Your task to perform on an android device: What's on my calendar tomorrow? Image 0: 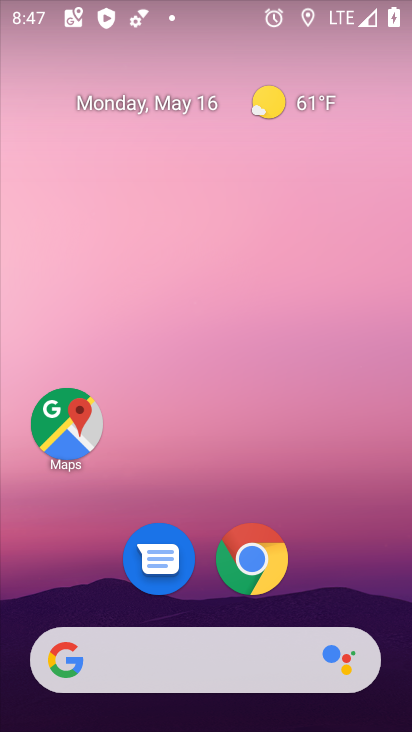
Step 0: drag from (336, 553) to (308, 113)
Your task to perform on an android device: What's on my calendar tomorrow? Image 1: 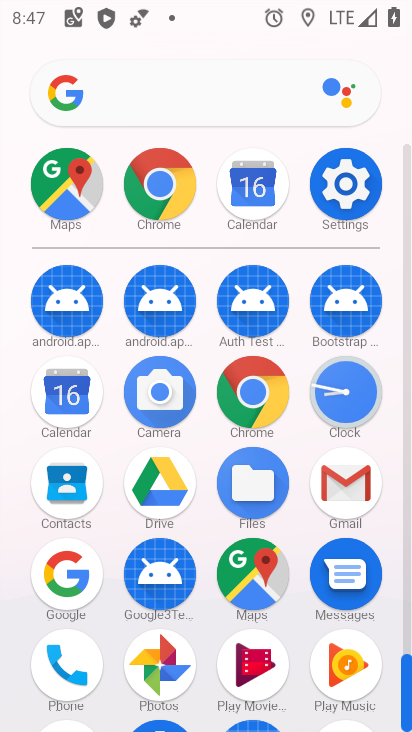
Step 1: click (72, 403)
Your task to perform on an android device: What's on my calendar tomorrow? Image 2: 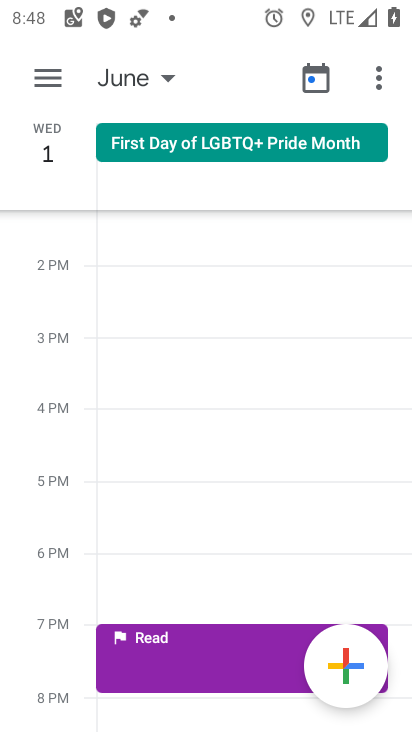
Step 2: click (122, 81)
Your task to perform on an android device: What's on my calendar tomorrow? Image 3: 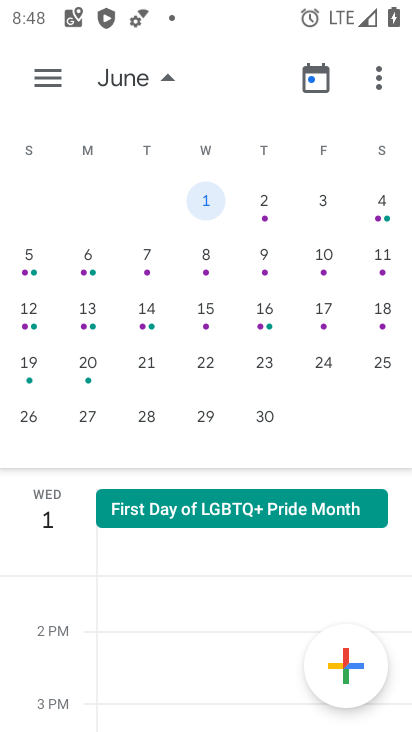
Step 3: drag from (72, 226) to (411, 228)
Your task to perform on an android device: What's on my calendar tomorrow? Image 4: 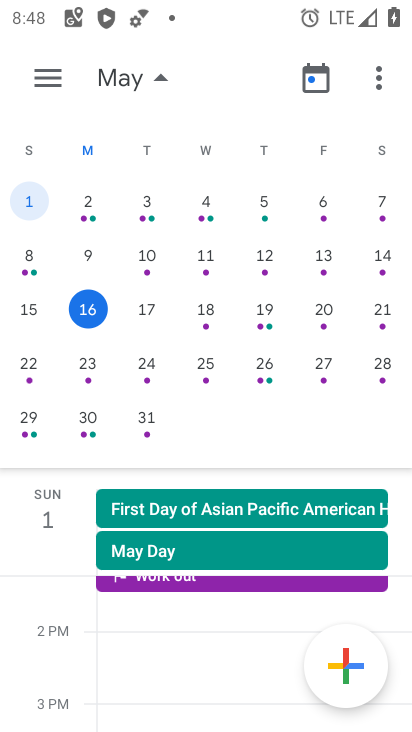
Step 4: click (145, 313)
Your task to perform on an android device: What's on my calendar tomorrow? Image 5: 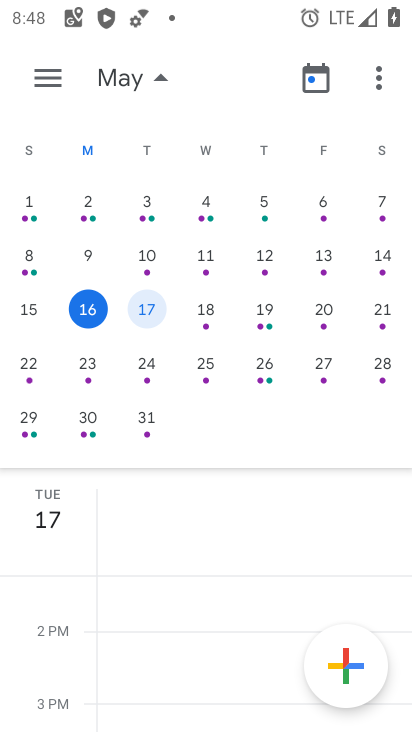
Step 5: task complete